Your task to perform on an android device: turn on location history Image 0: 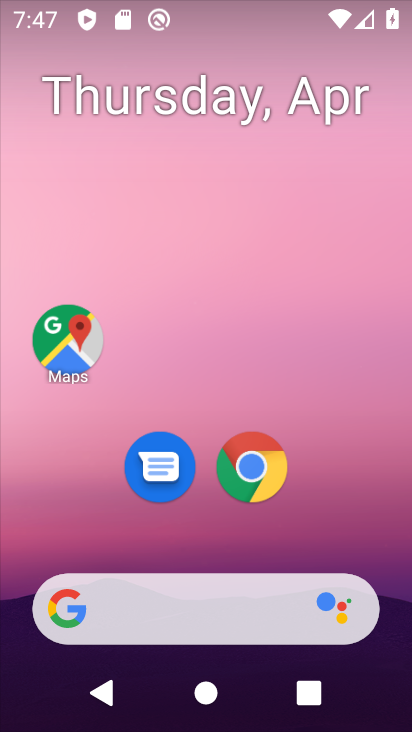
Step 0: drag from (201, 587) to (104, 52)
Your task to perform on an android device: turn on location history Image 1: 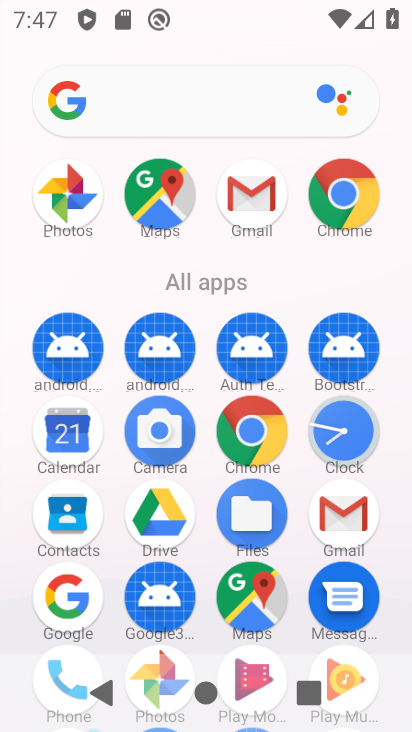
Step 1: drag from (209, 637) to (202, 93)
Your task to perform on an android device: turn on location history Image 2: 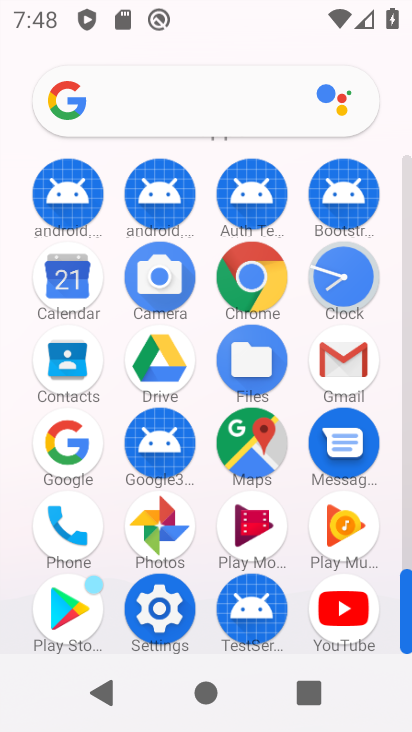
Step 2: click (164, 622)
Your task to perform on an android device: turn on location history Image 3: 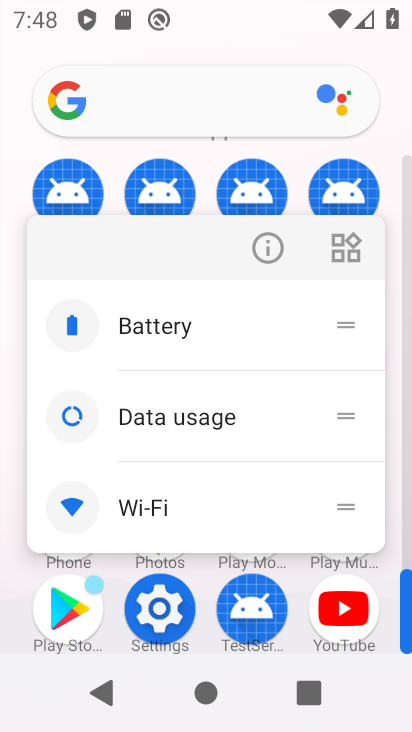
Step 3: click (164, 622)
Your task to perform on an android device: turn on location history Image 4: 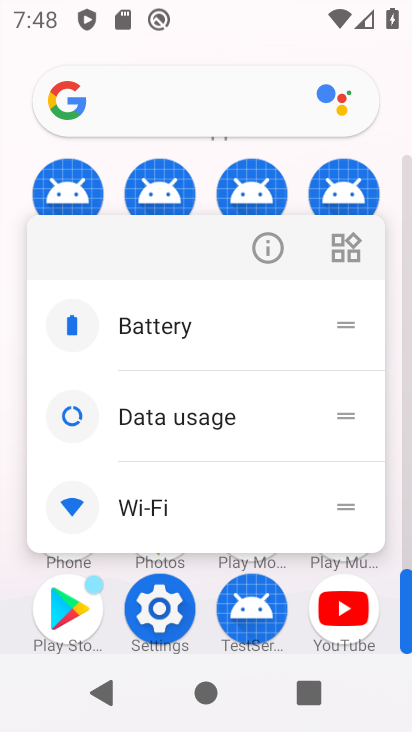
Step 4: click (159, 600)
Your task to perform on an android device: turn on location history Image 5: 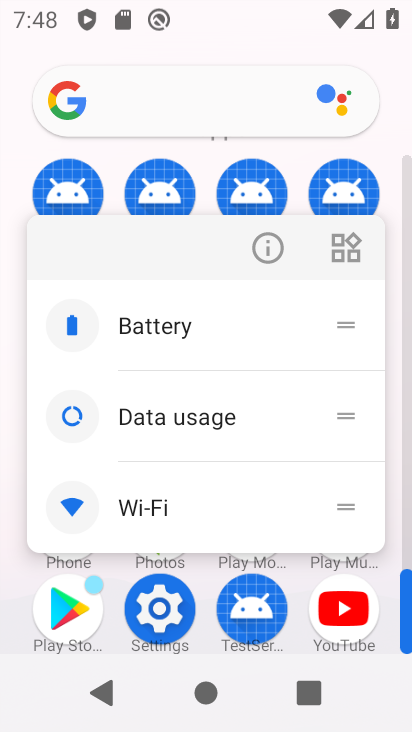
Step 5: click (159, 600)
Your task to perform on an android device: turn on location history Image 6: 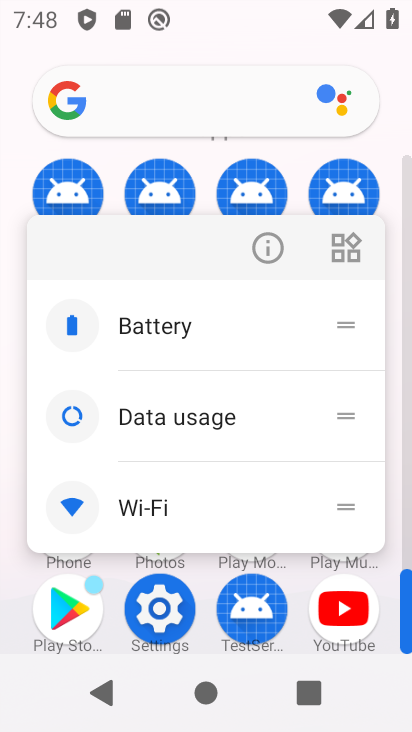
Step 6: click (159, 600)
Your task to perform on an android device: turn on location history Image 7: 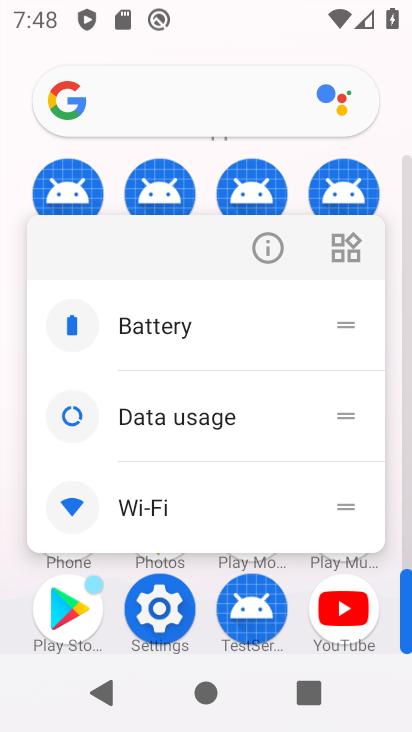
Step 7: click (159, 600)
Your task to perform on an android device: turn on location history Image 8: 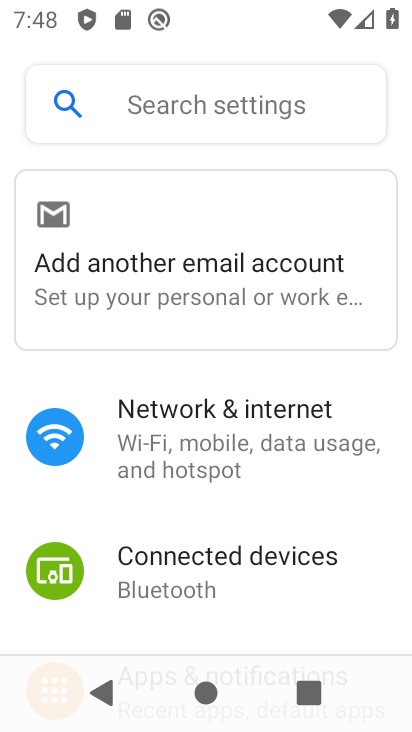
Step 8: drag from (169, 601) to (146, 27)
Your task to perform on an android device: turn on location history Image 9: 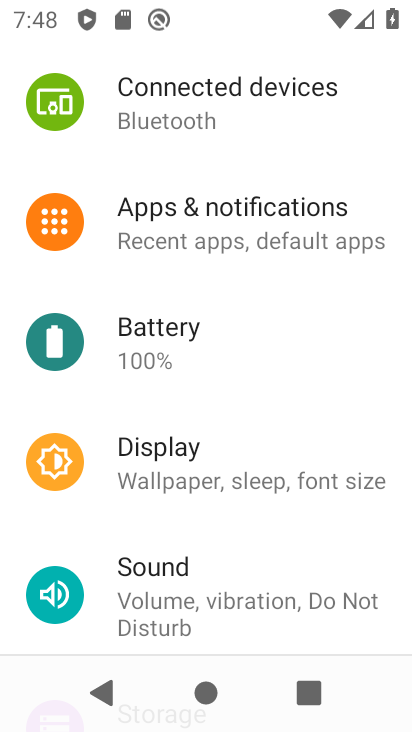
Step 9: drag from (242, 621) to (293, 15)
Your task to perform on an android device: turn on location history Image 10: 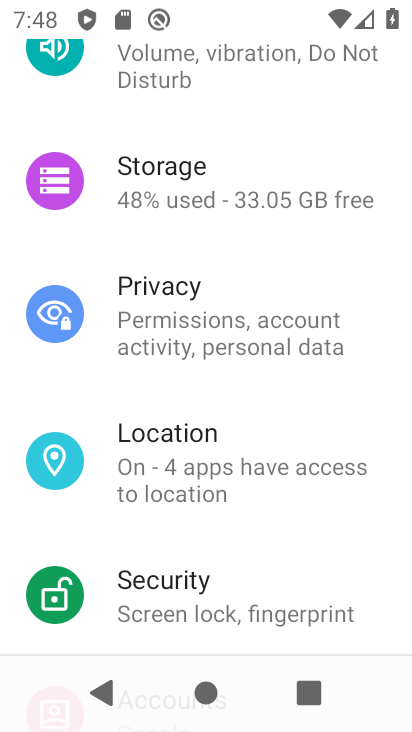
Step 10: click (207, 435)
Your task to perform on an android device: turn on location history Image 11: 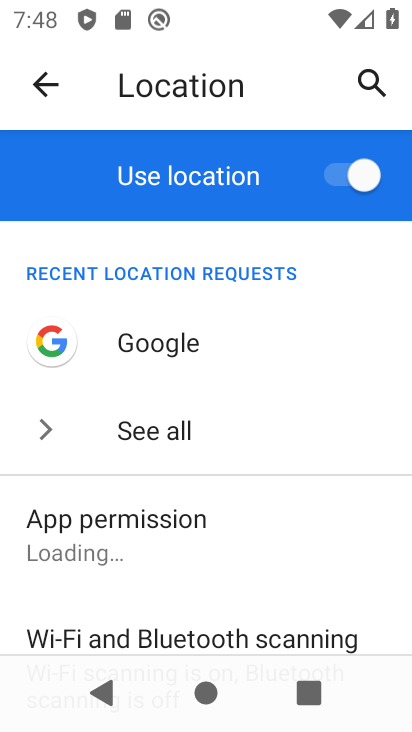
Step 11: drag from (209, 565) to (170, 84)
Your task to perform on an android device: turn on location history Image 12: 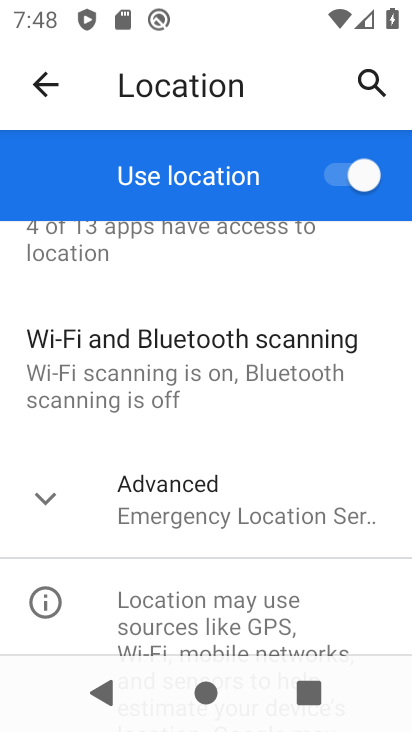
Step 12: click (256, 511)
Your task to perform on an android device: turn on location history Image 13: 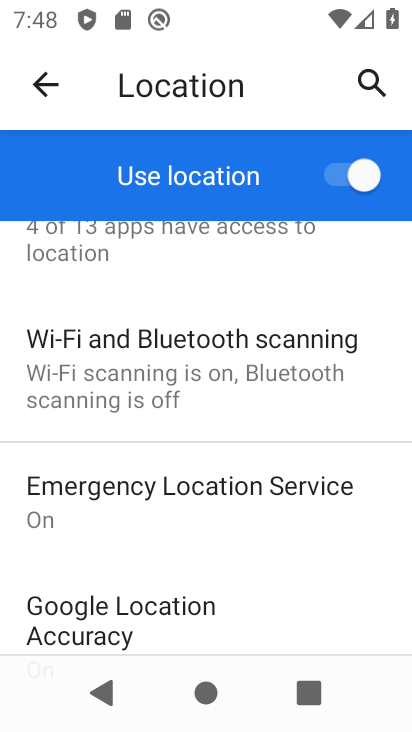
Step 13: drag from (211, 594) to (218, 185)
Your task to perform on an android device: turn on location history Image 14: 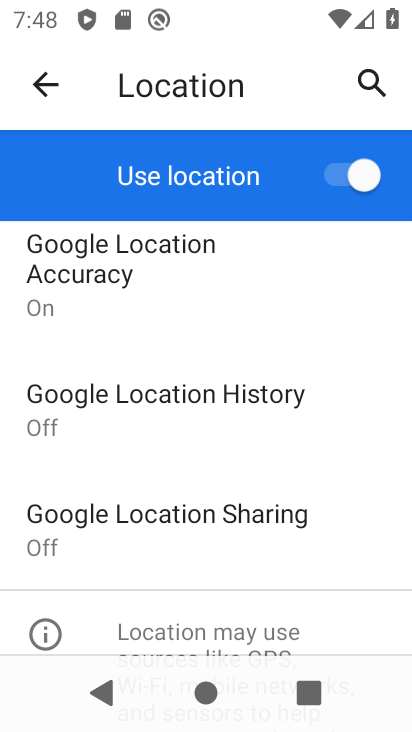
Step 14: click (189, 421)
Your task to perform on an android device: turn on location history Image 15: 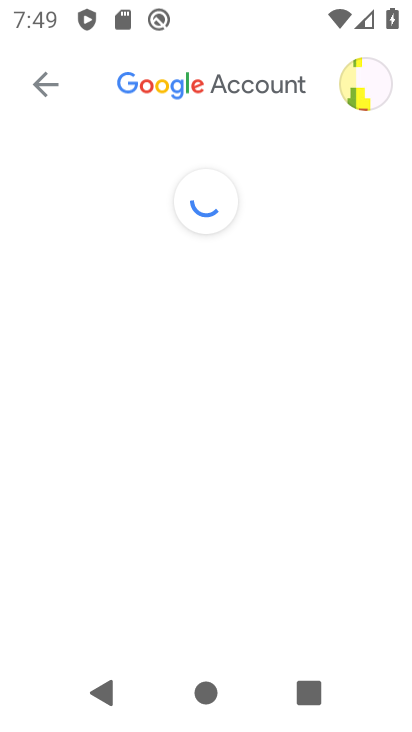
Step 15: drag from (289, 593) to (284, 220)
Your task to perform on an android device: turn on location history Image 16: 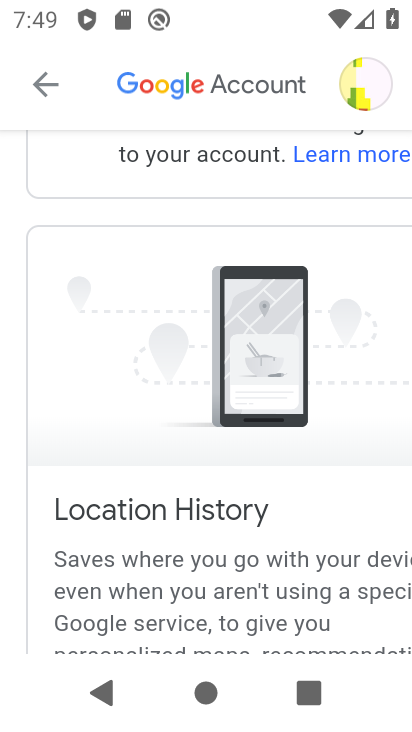
Step 16: drag from (302, 491) to (289, 99)
Your task to perform on an android device: turn on location history Image 17: 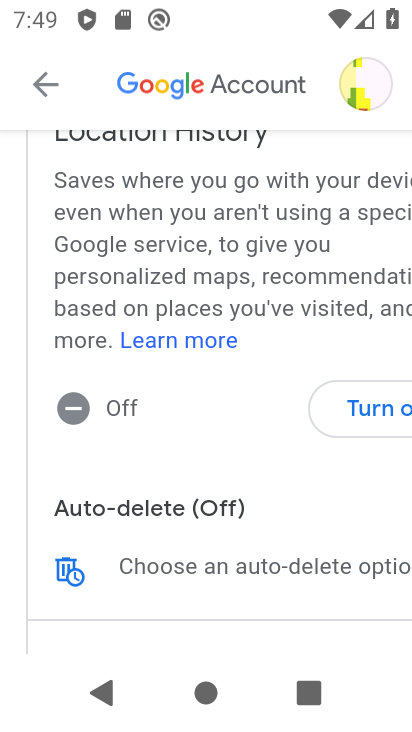
Step 17: click (350, 415)
Your task to perform on an android device: turn on location history Image 18: 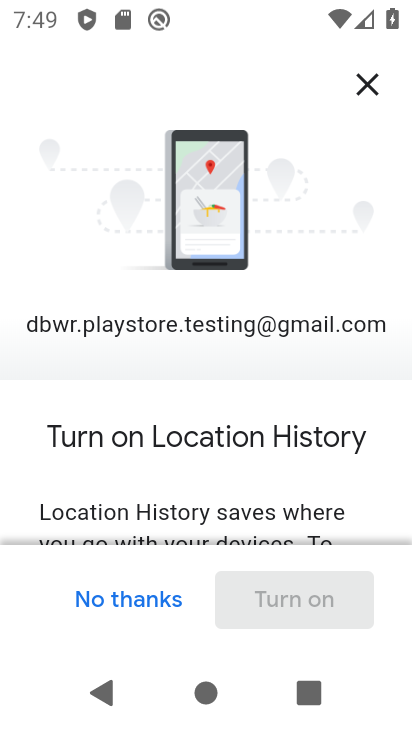
Step 18: drag from (320, 467) to (251, 37)
Your task to perform on an android device: turn on location history Image 19: 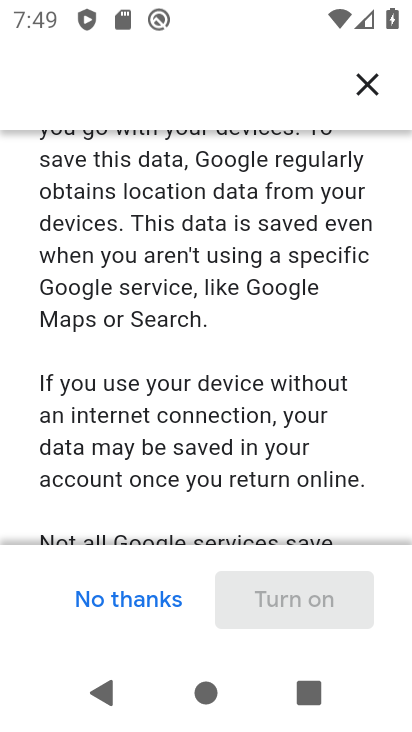
Step 19: drag from (287, 458) to (306, 13)
Your task to perform on an android device: turn on location history Image 20: 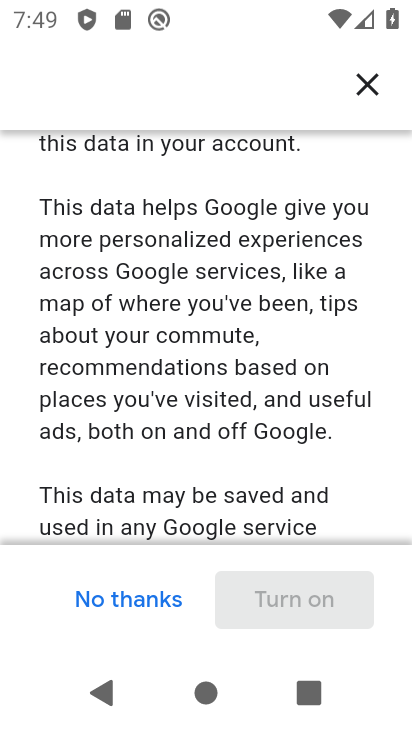
Step 20: drag from (229, 482) to (271, 55)
Your task to perform on an android device: turn on location history Image 21: 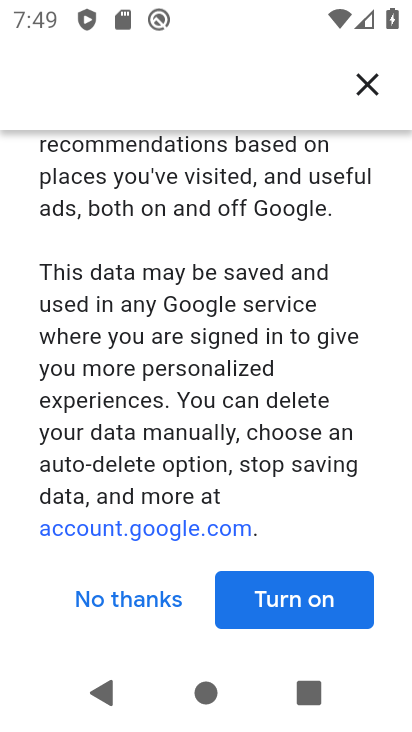
Step 21: click (303, 598)
Your task to perform on an android device: turn on location history Image 22: 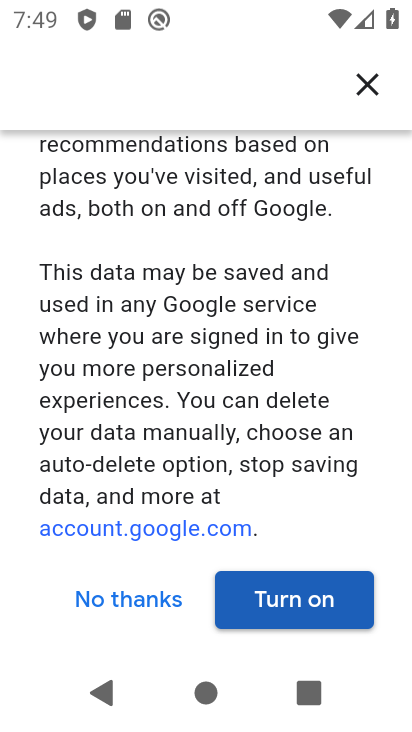
Step 22: click (303, 598)
Your task to perform on an android device: turn on location history Image 23: 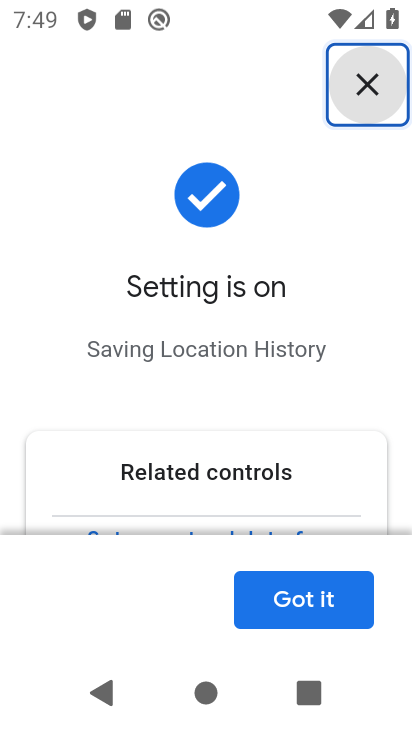
Step 23: task complete